Your task to perform on an android device: turn off priority inbox in the gmail app Image 0: 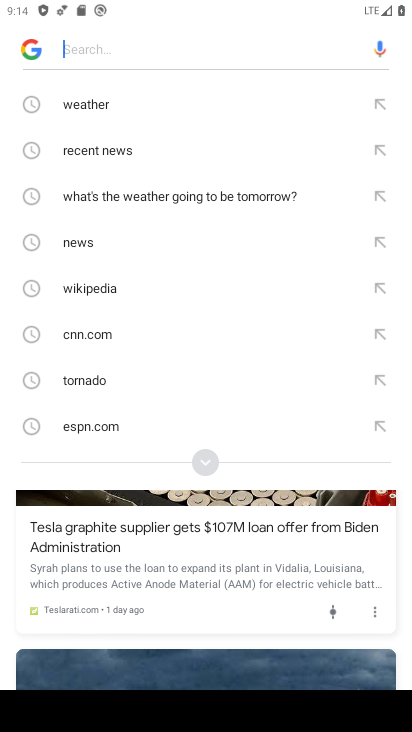
Step 0: press home button
Your task to perform on an android device: turn off priority inbox in the gmail app Image 1: 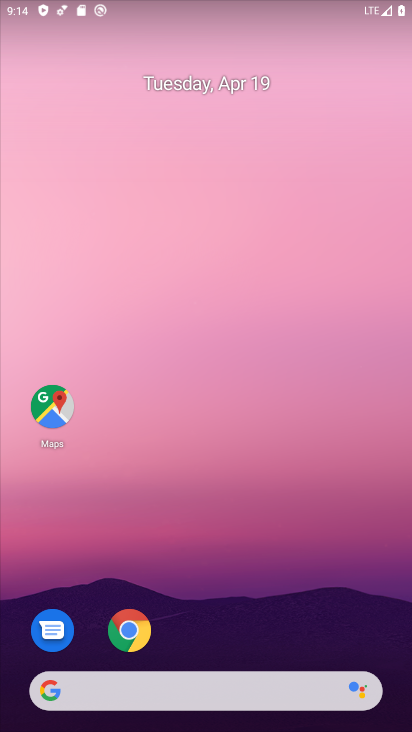
Step 1: drag from (194, 456) to (262, 18)
Your task to perform on an android device: turn off priority inbox in the gmail app Image 2: 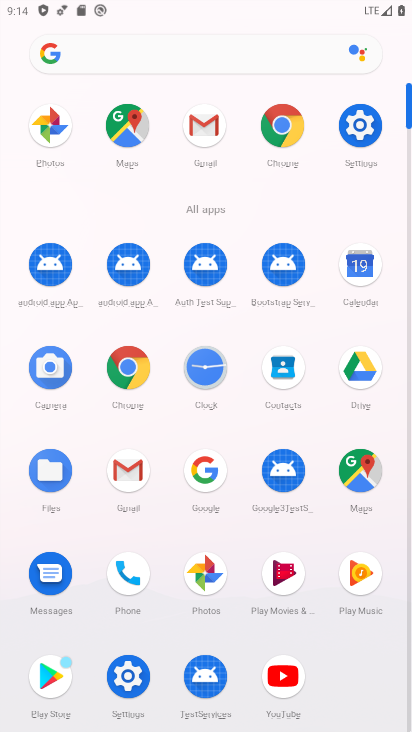
Step 2: click (203, 122)
Your task to perform on an android device: turn off priority inbox in the gmail app Image 3: 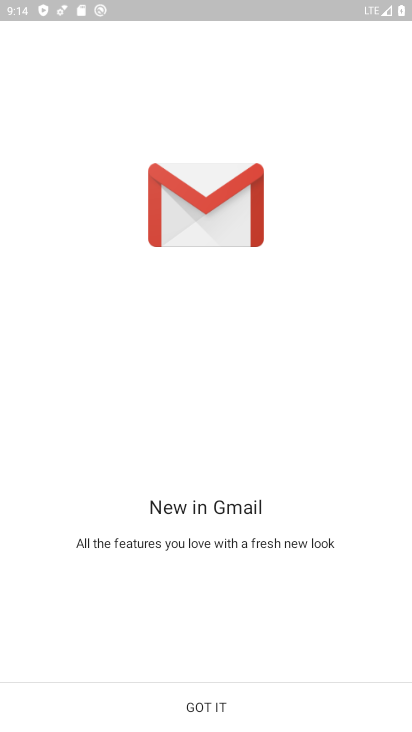
Step 3: click (202, 702)
Your task to perform on an android device: turn off priority inbox in the gmail app Image 4: 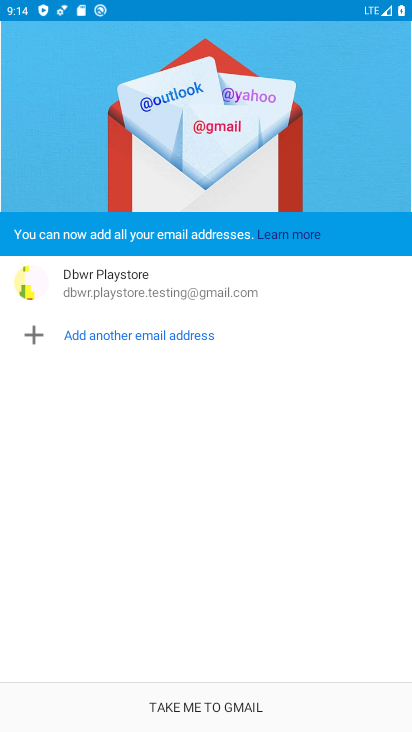
Step 4: click (202, 702)
Your task to perform on an android device: turn off priority inbox in the gmail app Image 5: 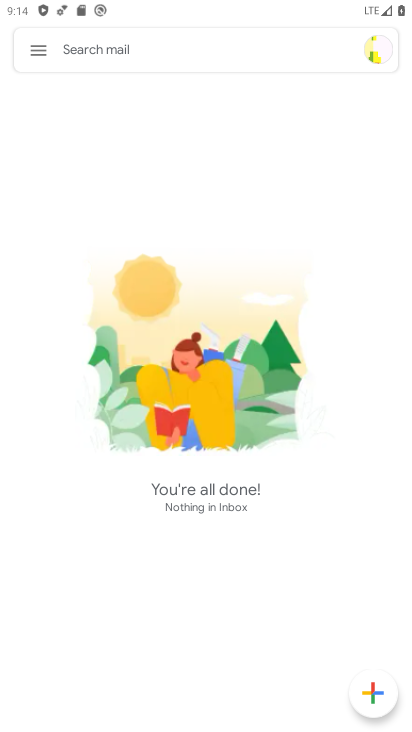
Step 5: click (39, 47)
Your task to perform on an android device: turn off priority inbox in the gmail app Image 6: 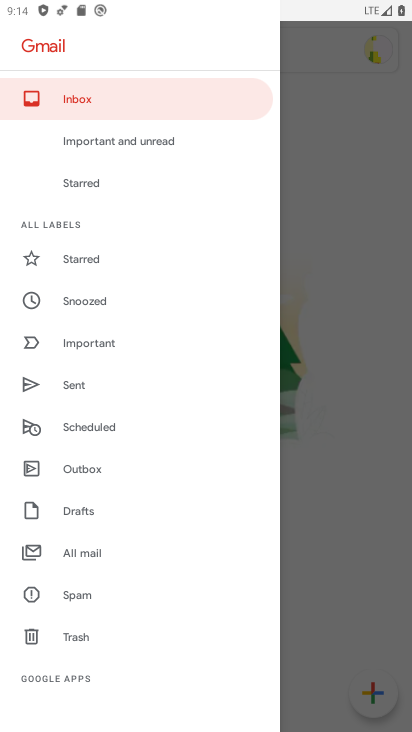
Step 6: drag from (82, 679) to (117, 221)
Your task to perform on an android device: turn off priority inbox in the gmail app Image 7: 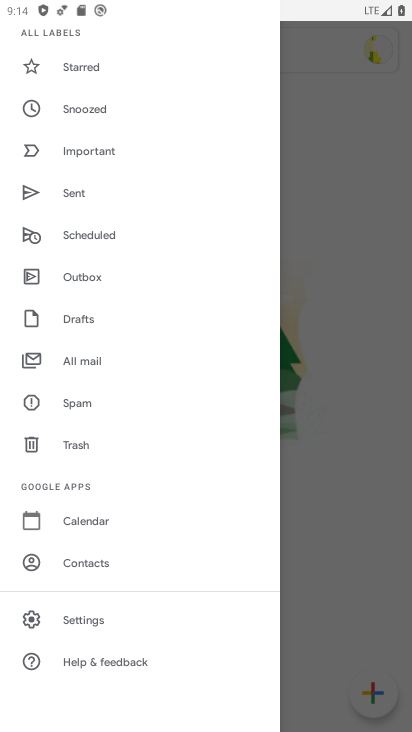
Step 7: click (86, 617)
Your task to perform on an android device: turn off priority inbox in the gmail app Image 8: 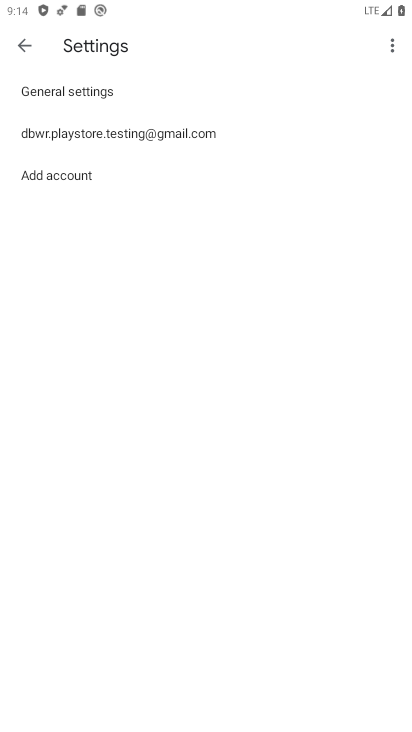
Step 8: click (188, 127)
Your task to perform on an android device: turn off priority inbox in the gmail app Image 9: 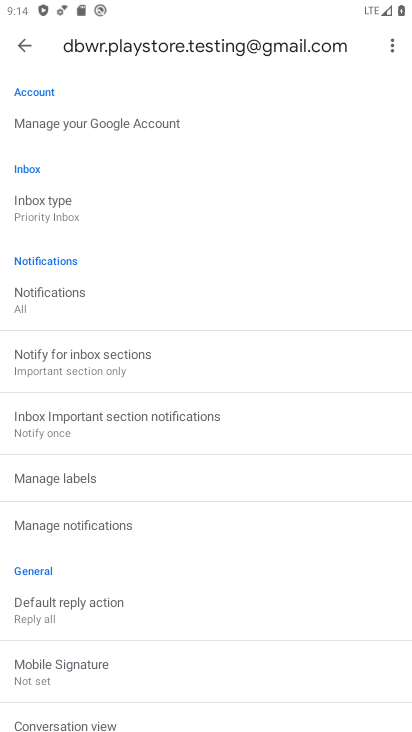
Step 9: click (62, 207)
Your task to perform on an android device: turn off priority inbox in the gmail app Image 10: 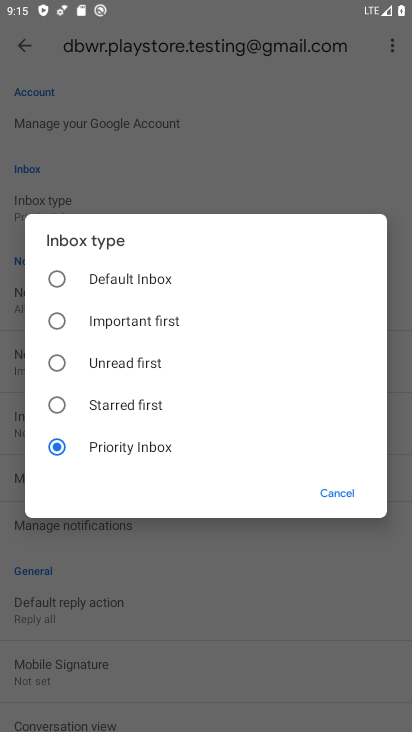
Step 10: click (60, 280)
Your task to perform on an android device: turn off priority inbox in the gmail app Image 11: 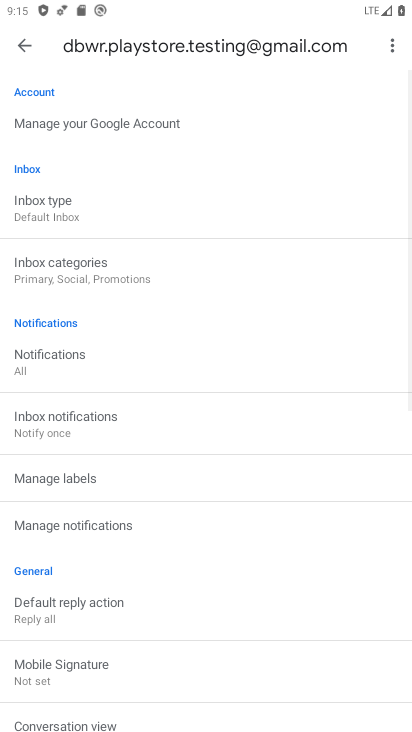
Step 11: task complete